Your task to perform on an android device: turn vacation reply on in the gmail app Image 0: 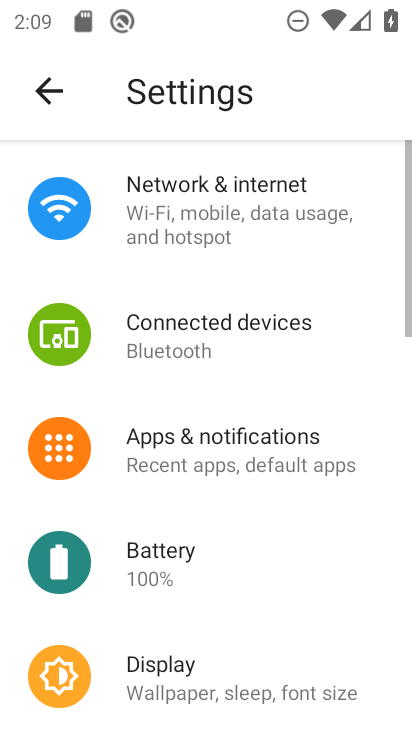
Step 0: press home button
Your task to perform on an android device: turn vacation reply on in the gmail app Image 1: 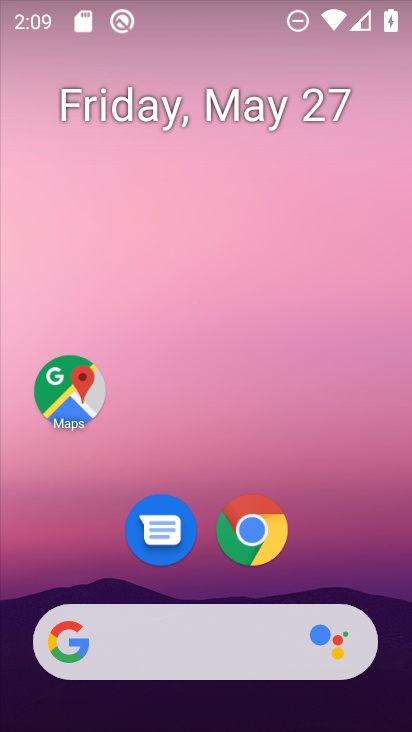
Step 1: drag from (124, 730) to (200, 78)
Your task to perform on an android device: turn vacation reply on in the gmail app Image 2: 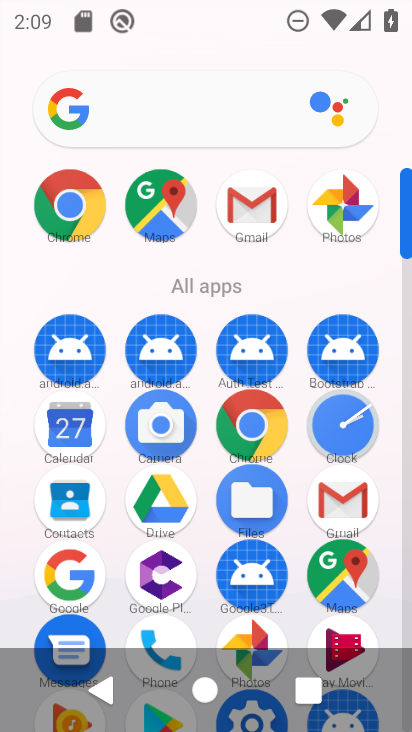
Step 2: click (260, 224)
Your task to perform on an android device: turn vacation reply on in the gmail app Image 3: 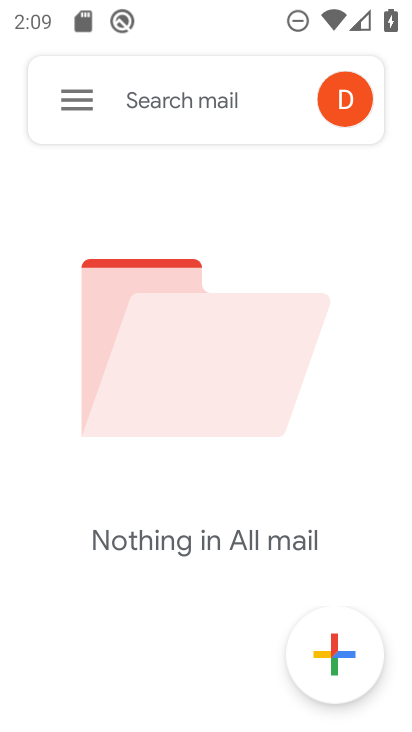
Step 3: click (76, 99)
Your task to perform on an android device: turn vacation reply on in the gmail app Image 4: 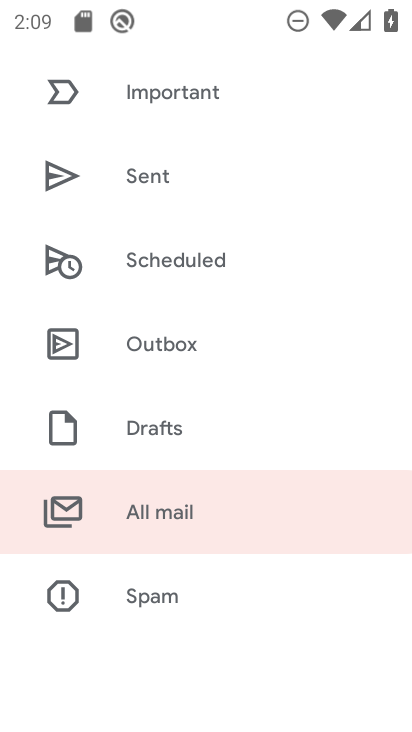
Step 4: drag from (231, 670) to (243, 264)
Your task to perform on an android device: turn vacation reply on in the gmail app Image 5: 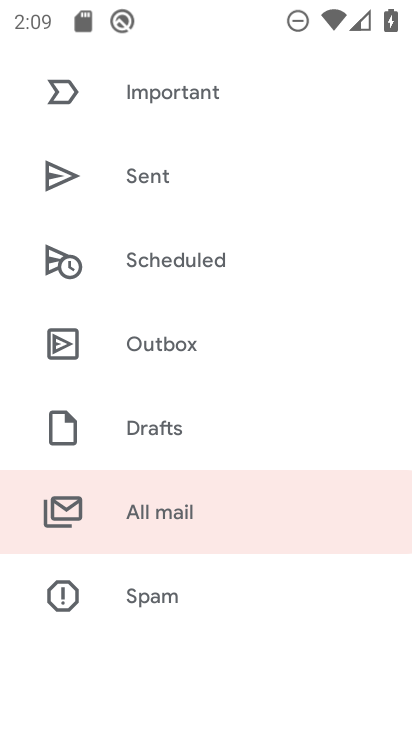
Step 5: press back button
Your task to perform on an android device: turn vacation reply on in the gmail app Image 6: 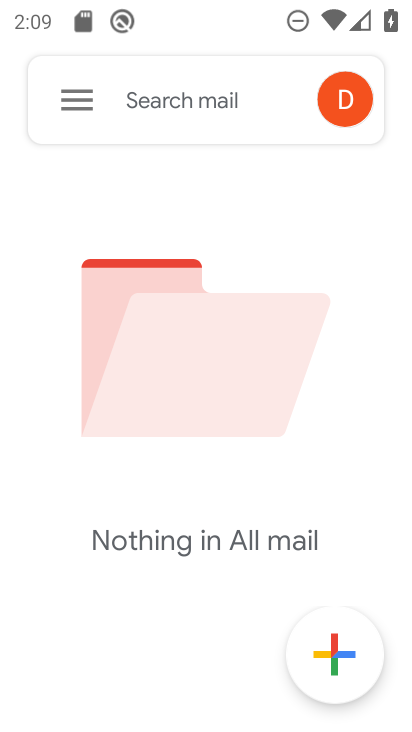
Step 6: click (72, 104)
Your task to perform on an android device: turn vacation reply on in the gmail app Image 7: 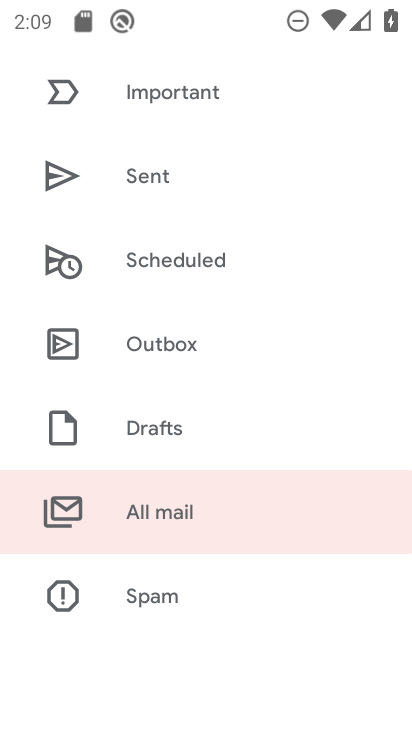
Step 7: drag from (269, 636) to (281, 301)
Your task to perform on an android device: turn vacation reply on in the gmail app Image 8: 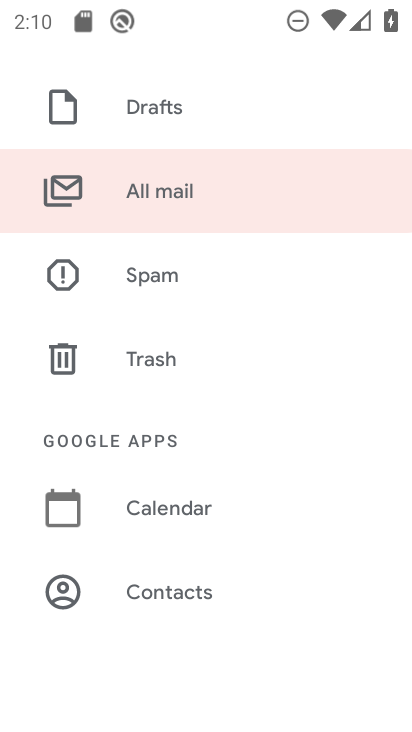
Step 8: drag from (251, 629) to (255, 263)
Your task to perform on an android device: turn vacation reply on in the gmail app Image 9: 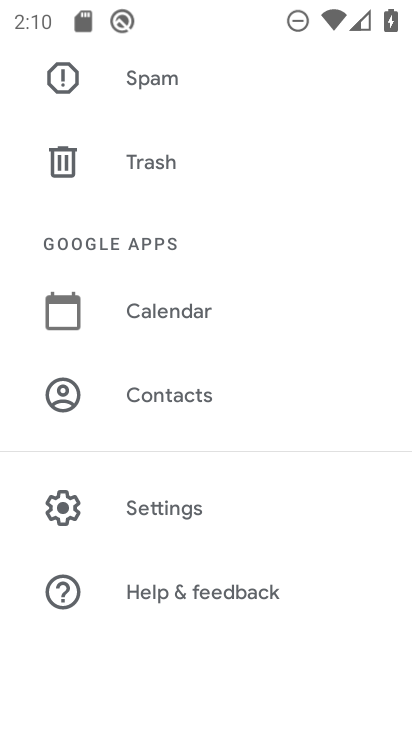
Step 9: click (173, 514)
Your task to perform on an android device: turn vacation reply on in the gmail app Image 10: 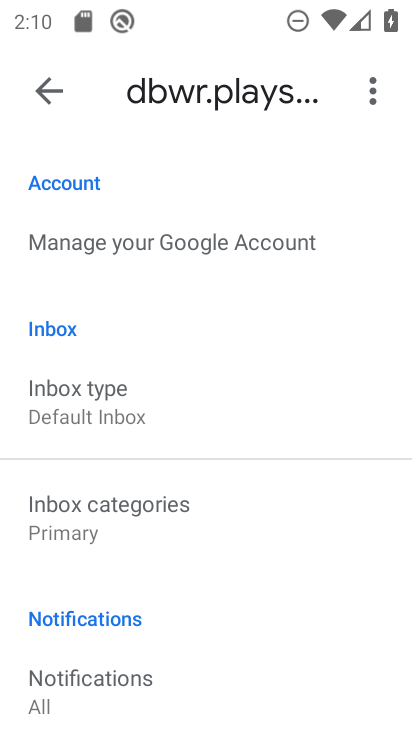
Step 10: drag from (170, 578) to (215, 193)
Your task to perform on an android device: turn vacation reply on in the gmail app Image 11: 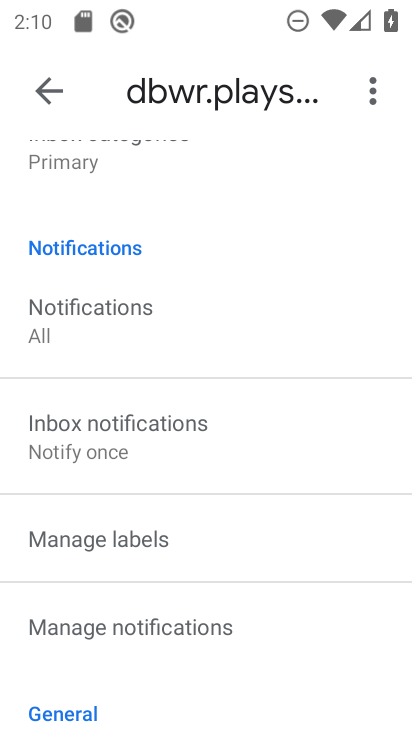
Step 11: drag from (203, 624) to (206, 204)
Your task to perform on an android device: turn vacation reply on in the gmail app Image 12: 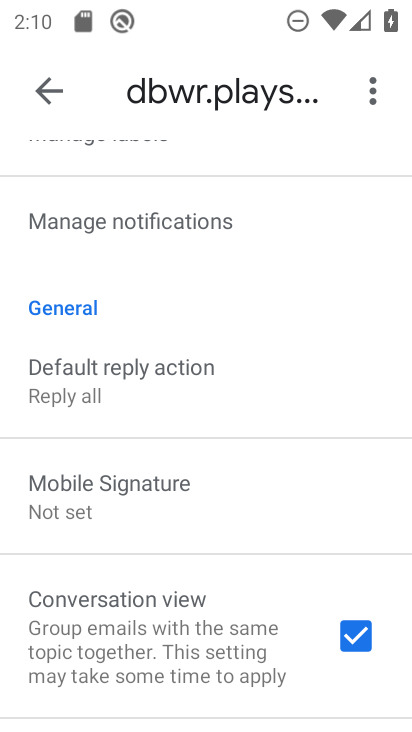
Step 12: drag from (84, 632) to (163, 225)
Your task to perform on an android device: turn vacation reply on in the gmail app Image 13: 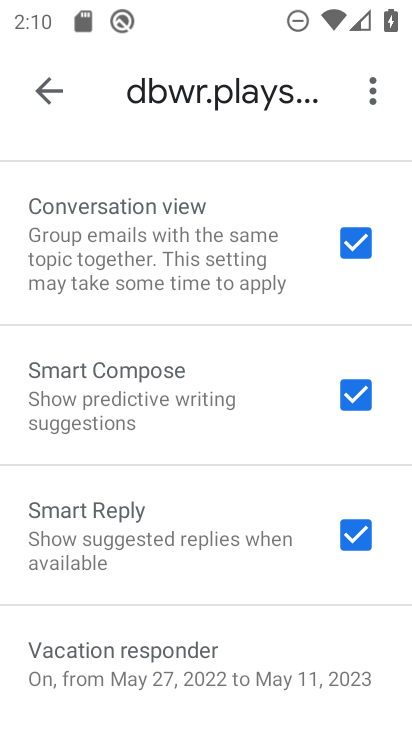
Step 13: click (175, 676)
Your task to perform on an android device: turn vacation reply on in the gmail app Image 14: 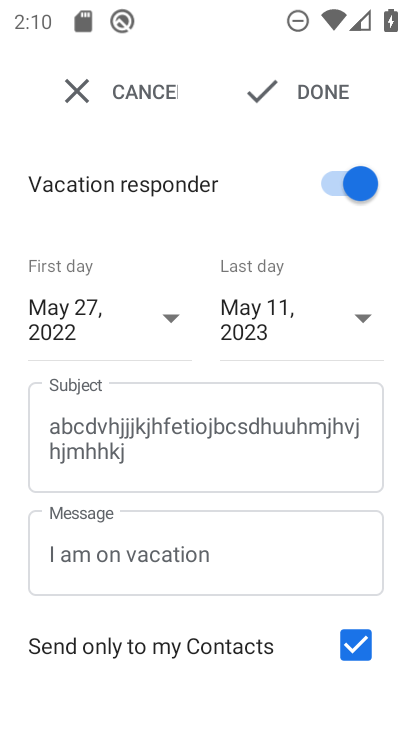
Step 14: task complete